Your task to perform on an android device: see tabs open on other devices in the chrome app Image 0: 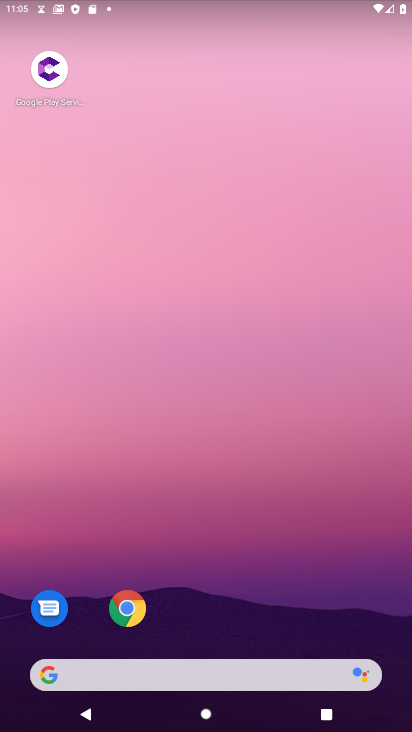
Step 0: drag from (196, 621) to (303, 161)
Your task to perform on an android device: see tabs open on other devices in the chrome app Image 1: 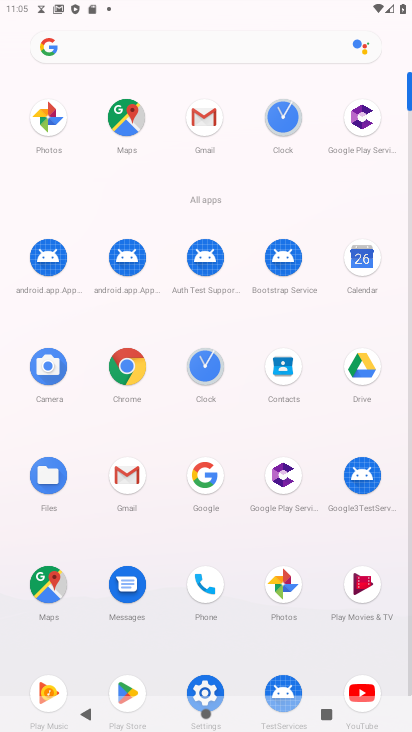
Step 1: click (124, 374)
Your task to perform on an android device: see tabs open on other devices in the chrome app Image 2: 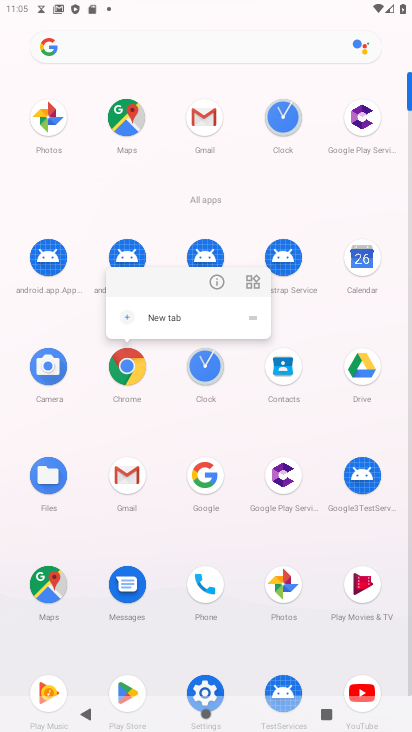
Step 2: click (216, 286)
Your task to perform on an android device: see tabs open on other devices in the chrome app Image 3: 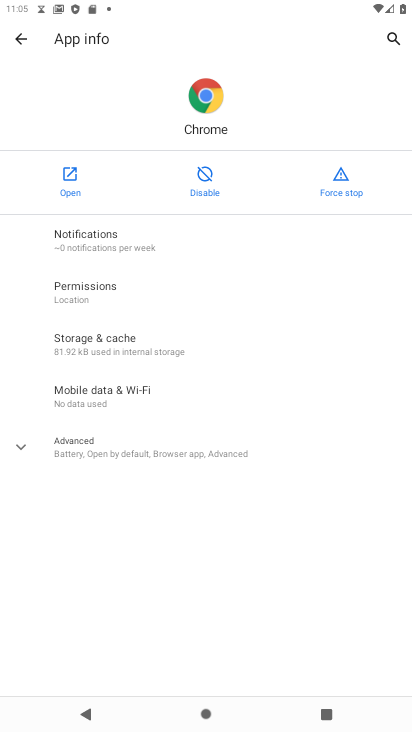
Step 3: click (70, 178)
Your task to perform on an android device: see tabs open on other devices in the chrome app Image 4: 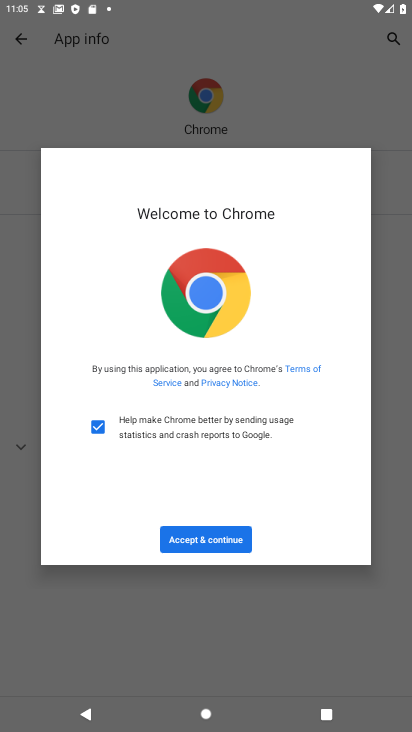
Step 4: click (190, 532)
Your task to perform on an android device: see tabs open on other devices in the chrome app Image 5: 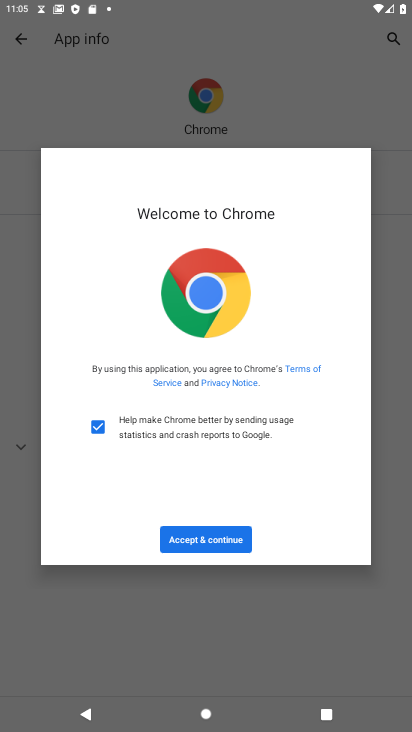
Step 5: click (189, 532)
Your task to perform on an android device: see tabs open on other devices in the chrome app Image 6: 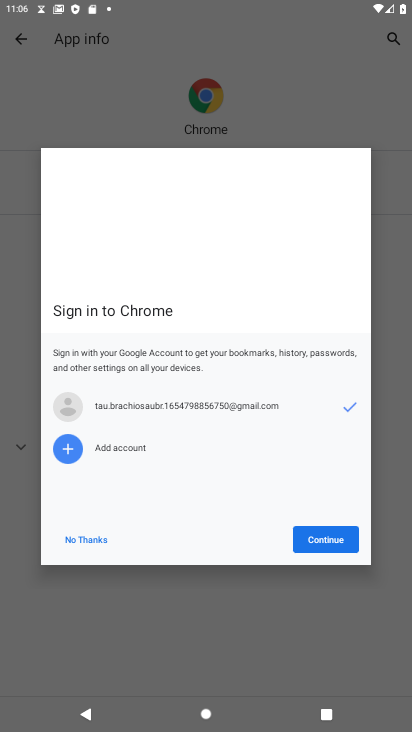
Step 6: click (326, 541)
Your task to perform on an android device: see tabs open on other devices in the chrome app Image 7: 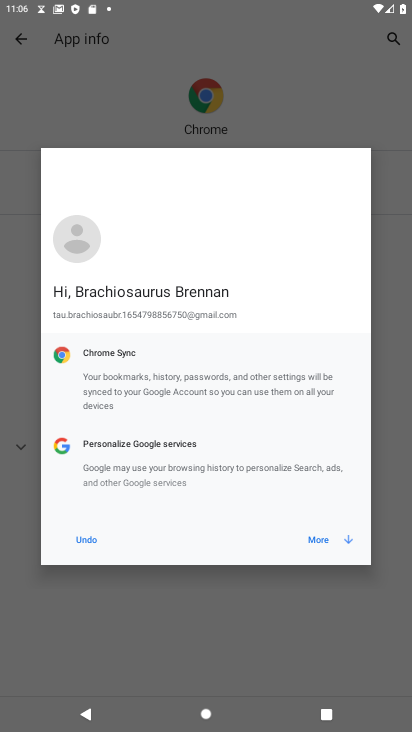
Step 7: click (327, 540)
Your task to perform on an android device: see tabs open on other devices in the chrome app Image 8: 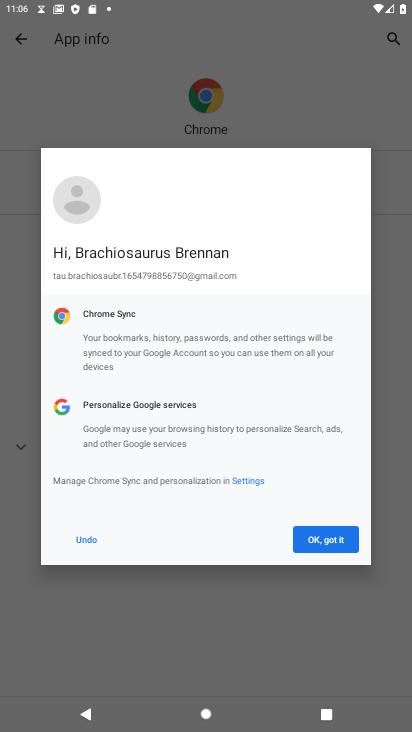
Step 8: click (327, 545)
Your task to perform on an android device: see tabs open on other devices in the chrome app Image 9: 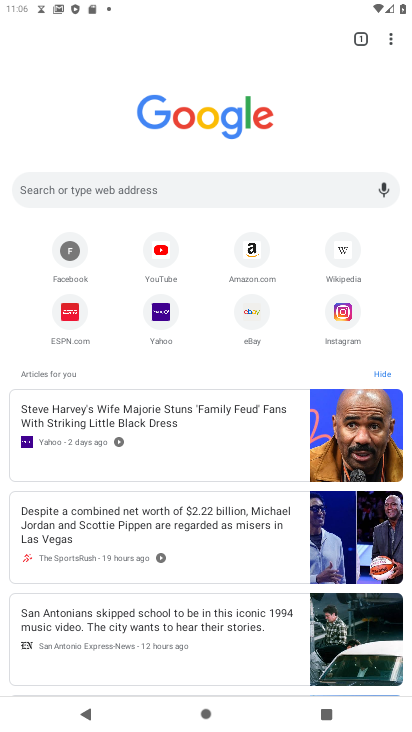
Step 9: drag from (393, 40) to (295, 186)
Your task to perform on an android device: see tabs open on other devices in the chrome app Image 10: 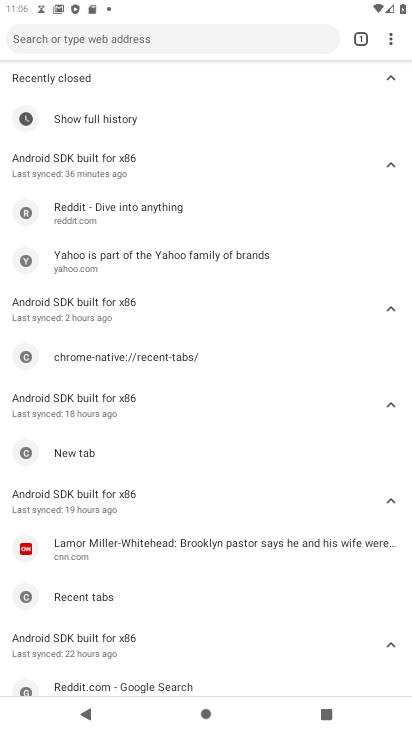
Step 10: drag from (219, 447) to (271, 204)
Your task to perform on an android device: see tabs open on other devices in the chrome app Image 11: 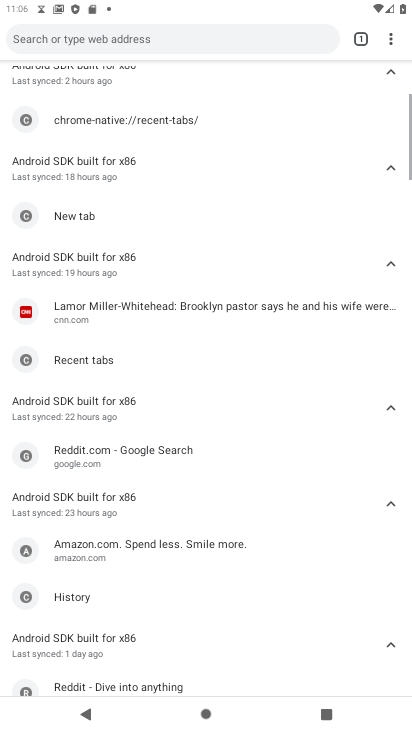
Step 11: drag from (181, 463) to (326, 113)
Your task to perform on an android device: see tabs open on other devices in the chrome app Image 12: 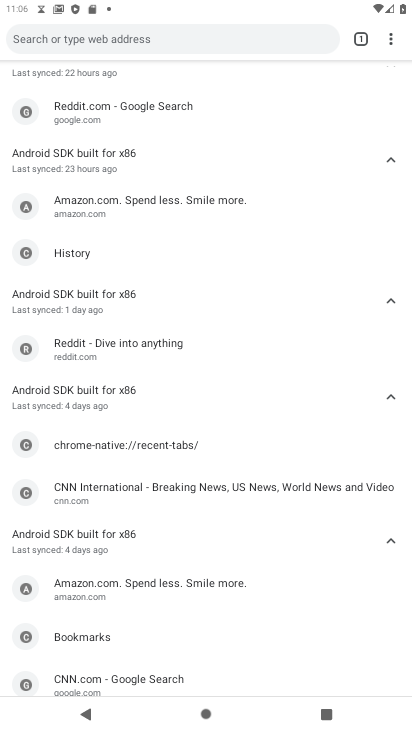
Step 12: drag from (256, 170) to (228, 671)
Your task to perform on an android device: see tabs open on other devices in the chrome app Image 13: 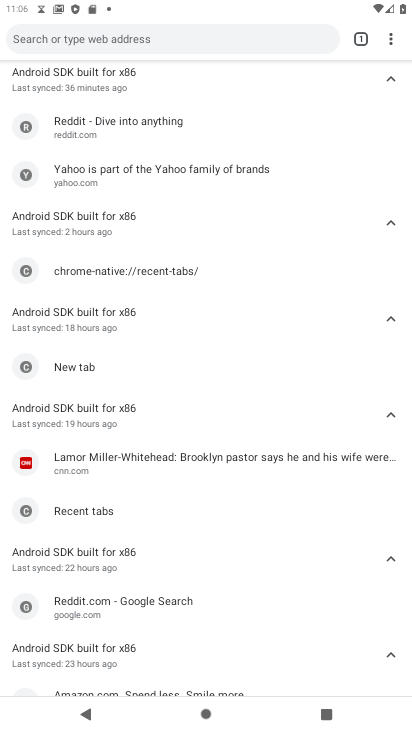
Step 13: drag from (293, 199) to (248, 663)
Your task to perform on an android device: see tabs open on other devices in the chrome app Image 14: 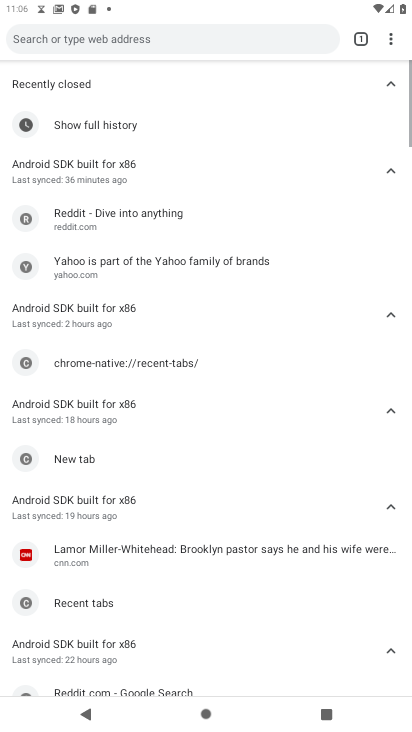
Step 14: drag from (255, 156) to (172, 581)
Your task to perform on an android device: see tabs open on other devices in the chrome app Image 15: 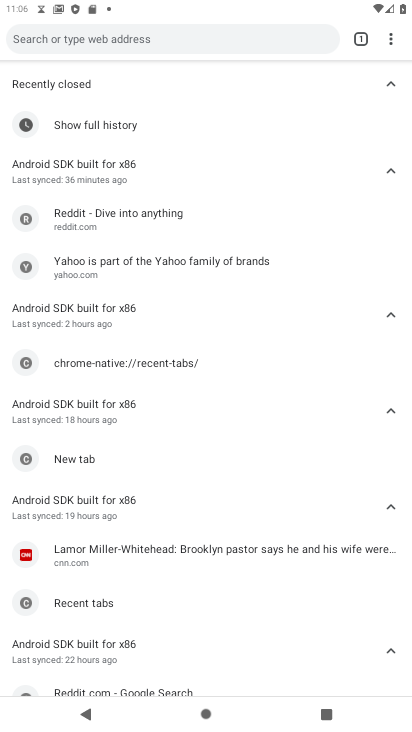
Step 15: drag from (253, 222) to (249, 591)
Your task to perform on an android device: see tabs open on other devices in the chrome app Image 16: 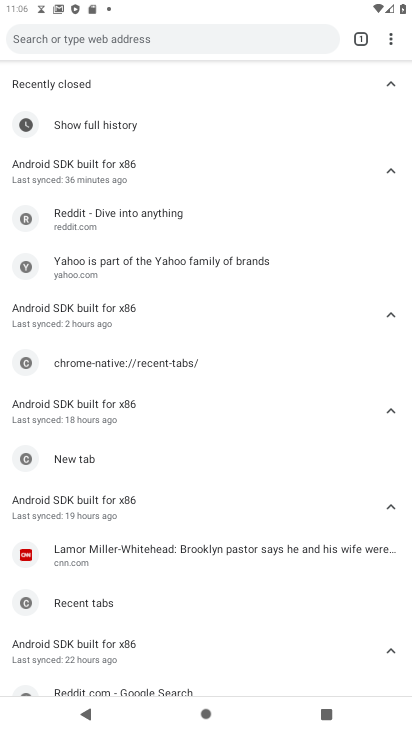
Step 16: drag from (167, 187) to (233, 614)
Your task to perform on an android device: see tabs open on other devices in the chrome app Image 17: 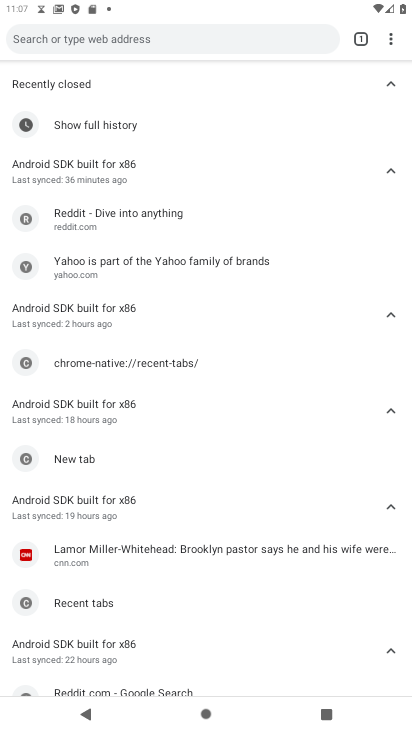
Step 17: drag from (211, 523) to (299, 92)
Your task to perform on an android device: see tabs open on other devices in the chrome app Image 18: 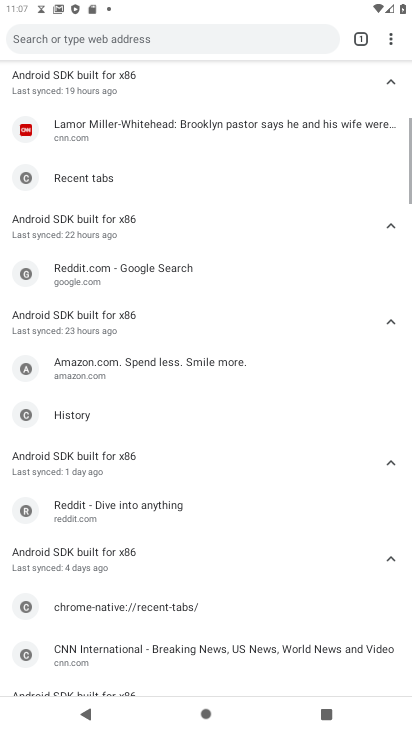
Step 18: drag from (275, 116) to (187, 687)
Your task to perform on an android device: see tabs open on other devices in the chrome app Image 19: 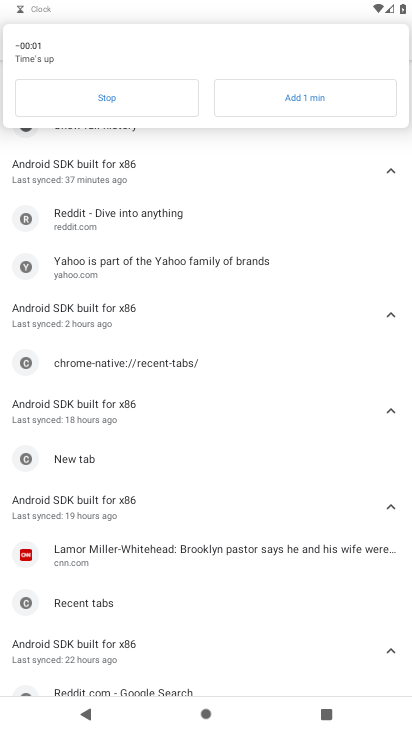
Step 19: drag from (395, 30) to (273, 706)
Your task to perform on an android device: see tabs open on other devices in the chrome app Image 20: 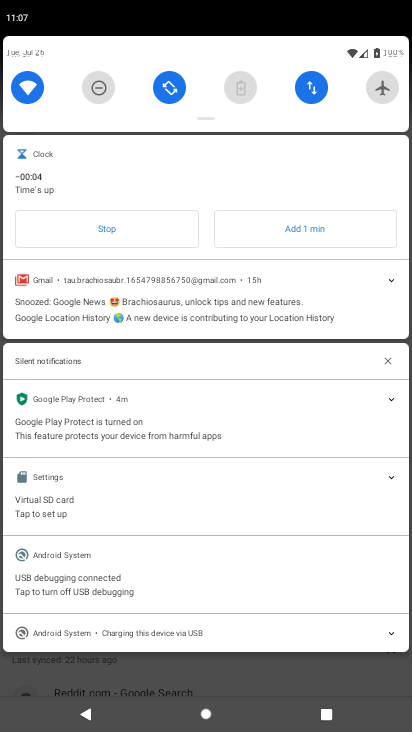
Step 20: click (127, 231)
Your task to perform on an android device: see tabs open on other devices in the chrome app Image 21: 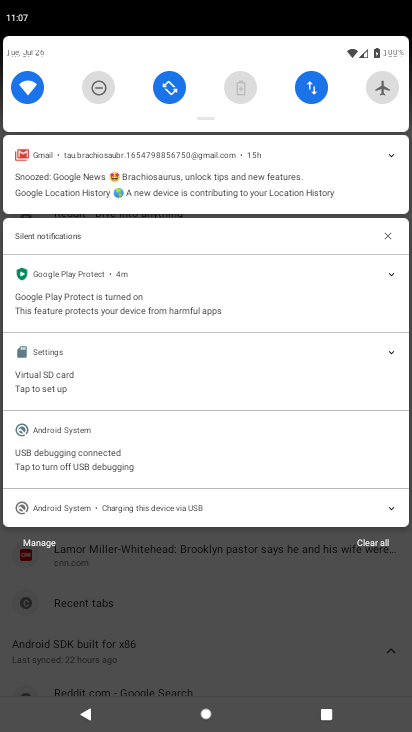
Step 21: click (381, 544)
Your task to perform on an android device: see tabs open on other devices in the chrome app Image 22: 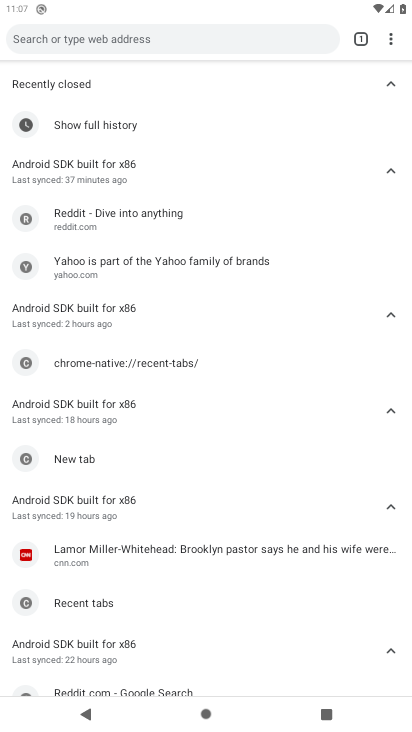
Step 22: drag from (389, 36) to (276, 324)
Your task to perform on an android device: see tabs open on other devices in the chrome app Image 23: 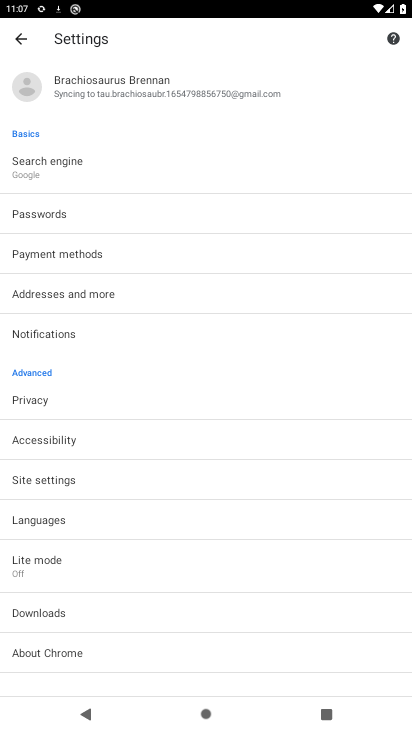
Step 23: drag from (139, 542) to (201, 210)
Your task to perform on an android device: see tabs open on other devices in the chrome app Image 24: 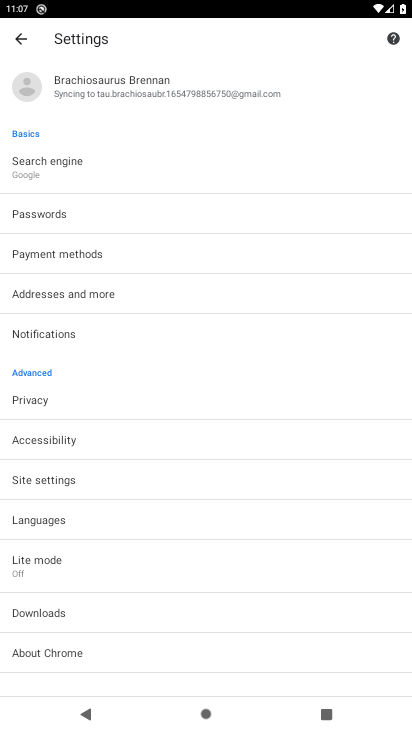
Step 24: click (87, 482)
Your task to perform on an android device: see tabs open on other devices in the chrome app Image 25: 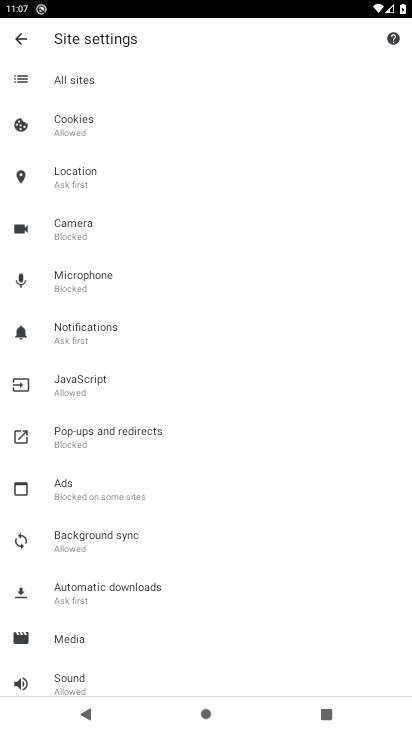
Step 25: click (32, 39)
Your task to perform on an android device: see tabs open on other devices in the chrome app Image 26: 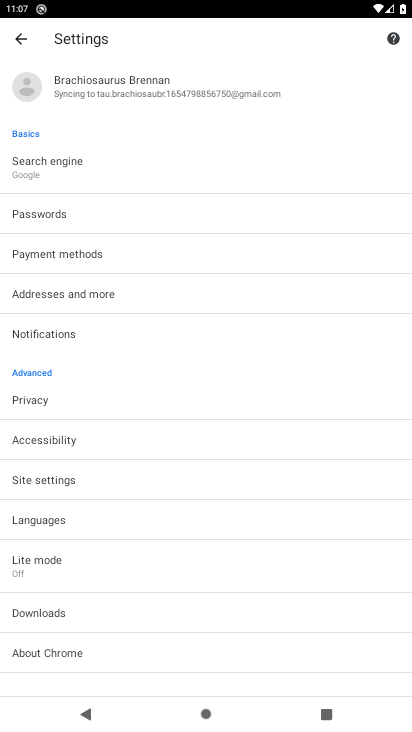
Step 26: click (32, 39)
Your task to perform on an android device: see tabs open on other devices in the chrome app Image 27: 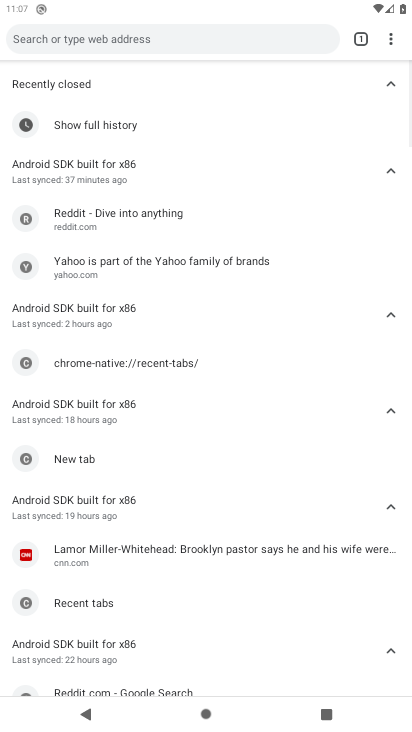
Step 27: task complete